Your task to perform on an android device: Open internet settings Image 0: 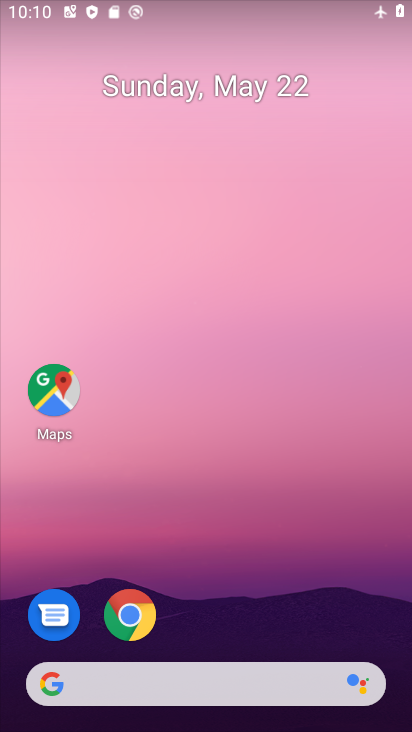
Step 0: drag from (264, 601) to (113, 1)
Your task to perform on an android device: Open internet settings Image 1: 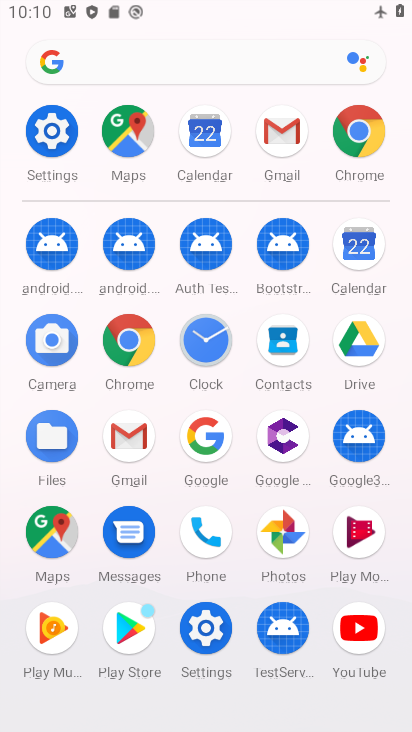
Step 1: click (62, 122)
Your task to perform on an android device: Open internet settings Image 2: 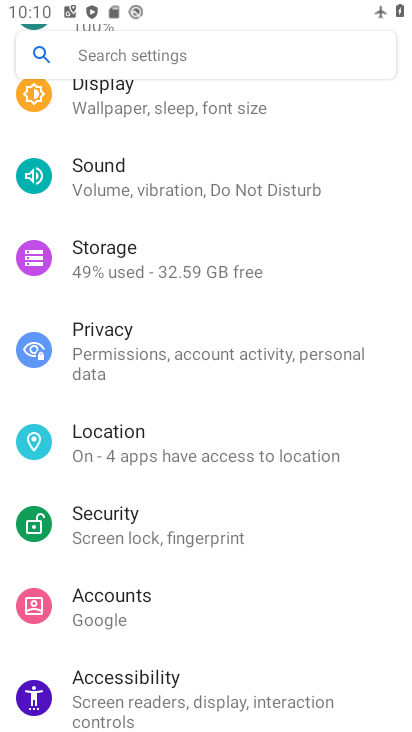
Step 2: drag from (100, 121) to (169, 636)
Your task to perform on an android device: Open internet settings Image 3: 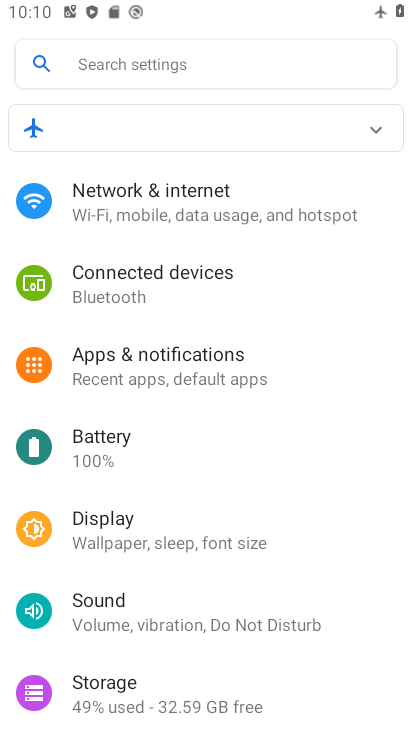
Step 3: click (157, 220)
Your task to perform on an android device: Open internet settings Image 4: 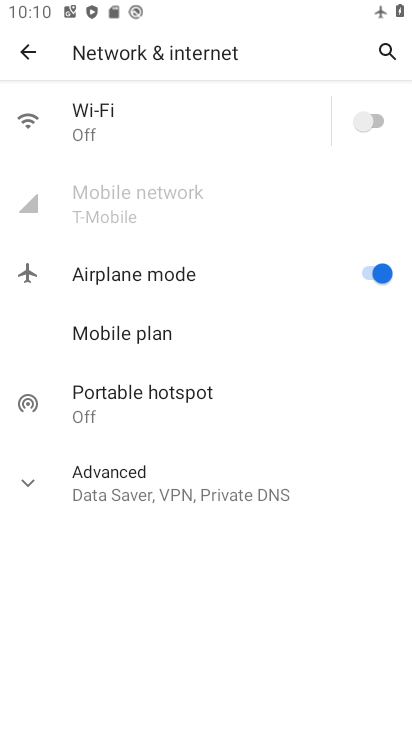
Step 4: click (136, 484)
Your task to perform on an android device: Open internet settings Image 5: 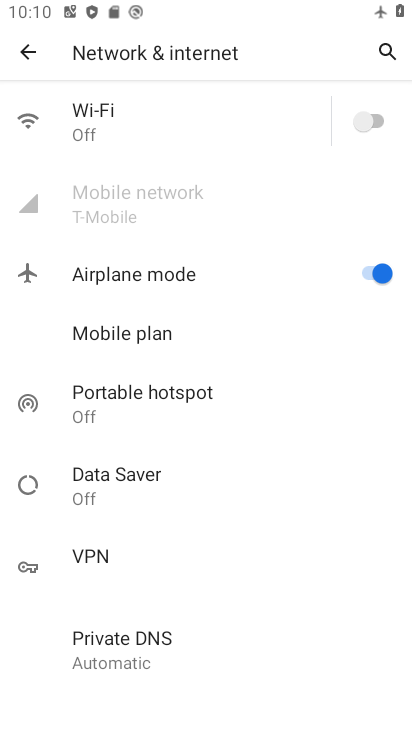
Step 5: task complete